Your task to perform on an android device: Open Reddit.com Image 0: 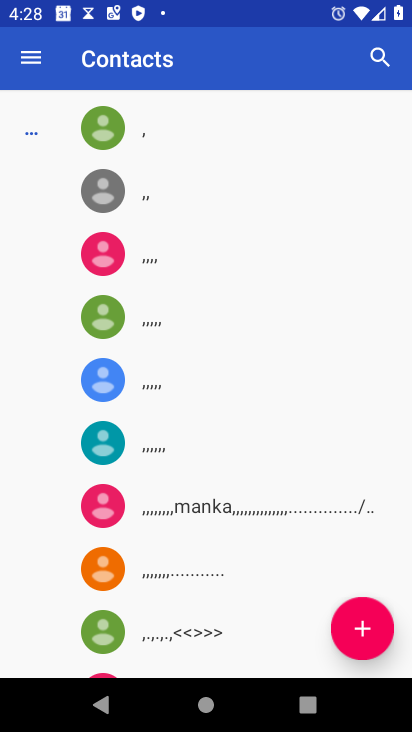
Step 0: press home button
Your task to perform on an android device: Open Reddit.com Image 1: 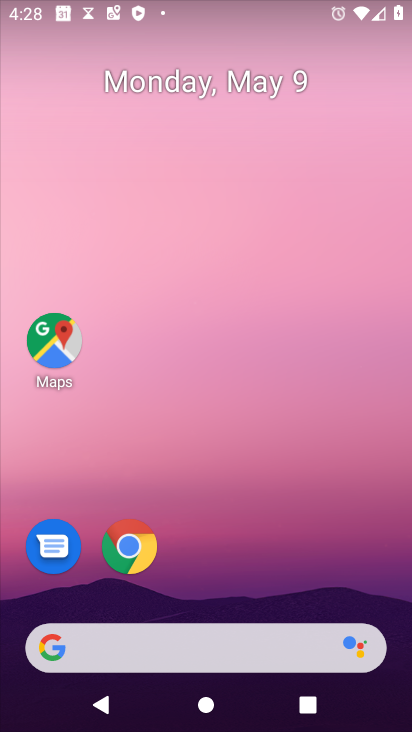
Step 1: drag from (239, 358) to (192, 25)
Your task to perform on an android device: Open Reddit.com Image 2: 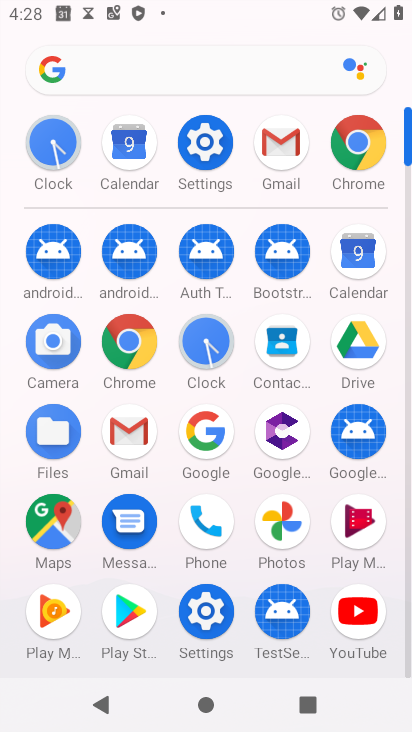
Step 2: click (367, 135)
Your task to perform on an android device: Open Reddit.com Image 3: 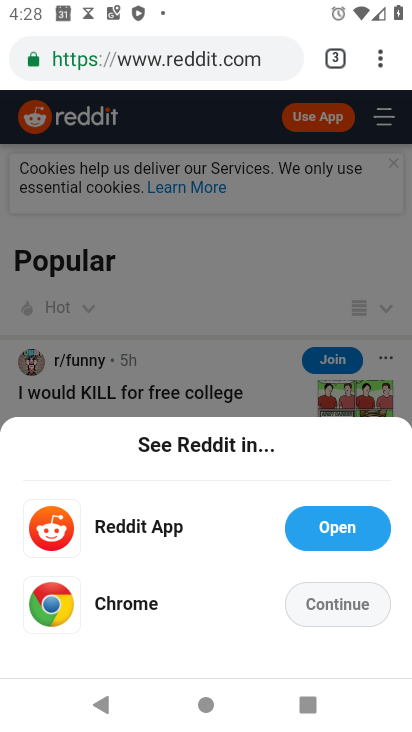
Step 3: press back button
Your task to perform on an android device: Open Reddit.com Image 4: 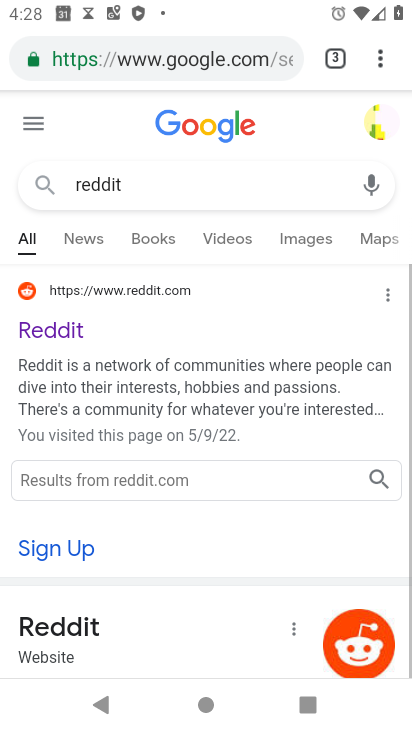
Step 4: click (49, 323)
Your task to perform on an android device: Open Reddit.com Image 5: 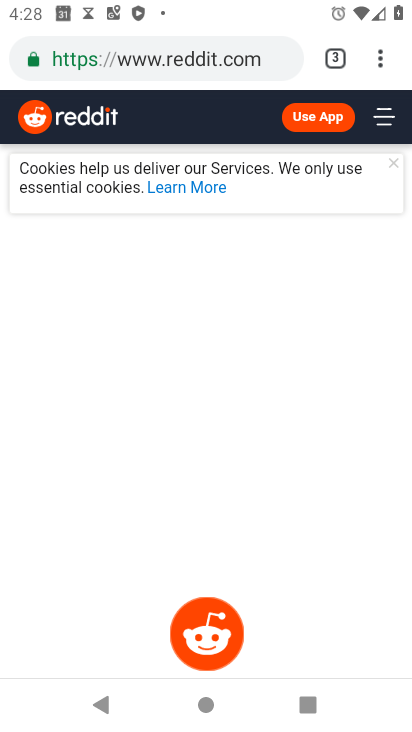
Step 5: task complete